Your task to perform on an android device: Do I have any events tomorrow? Image 0: 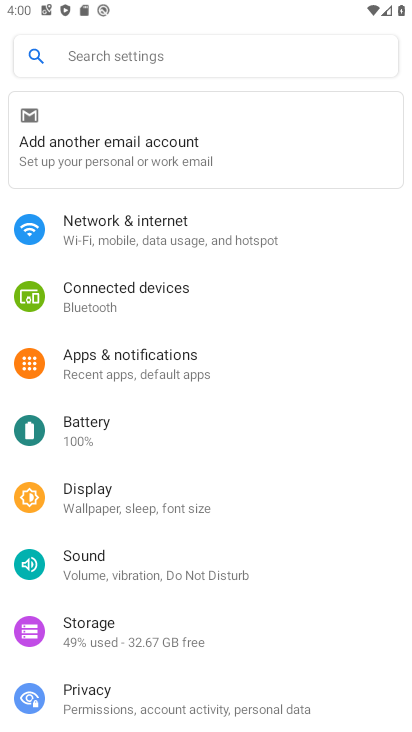
Step 0: press home button
Your task to perform on an android device: Do I have any events tomorrow? Image 1: 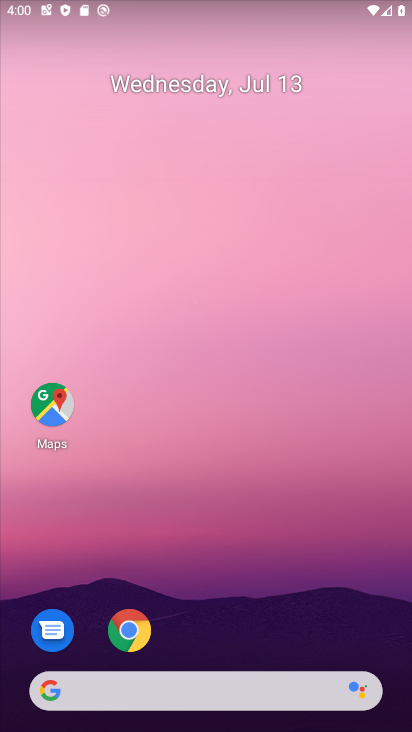
Step 1: drag from (325, 588) to (383, 183)
Your task to perform on an android device: Do I have any events tomorrow? Image 2: 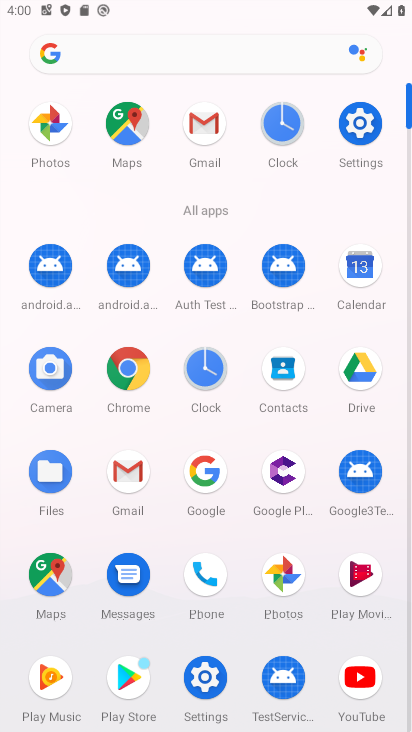
Step 2: click (358, 271)
Your task to perform on an android device: Do I have any events tomorrow? Image 3: 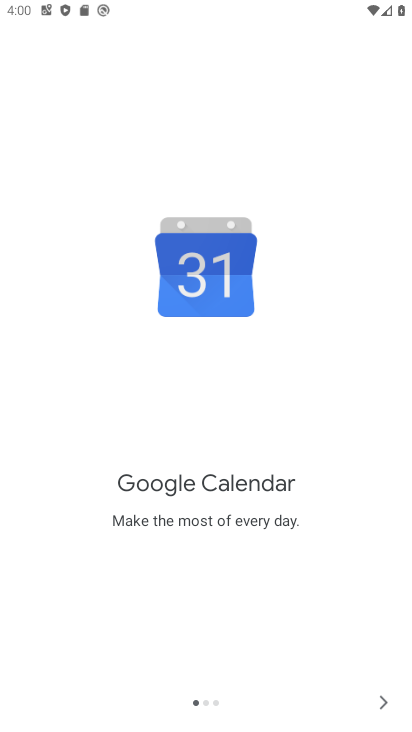
Step 3: click (377, 701)
Your task to perform on an android device: Do I have any events tomorrow? Image 4: 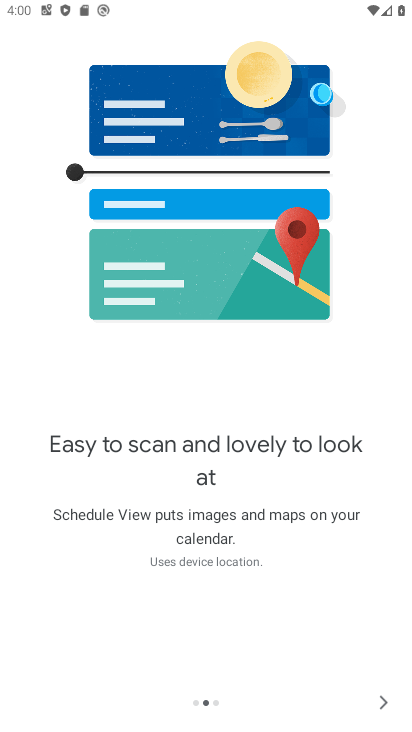
Step 4: click (377, 701)
Your task to perform on an android device: Do I have any events tomorrow? Image 5: 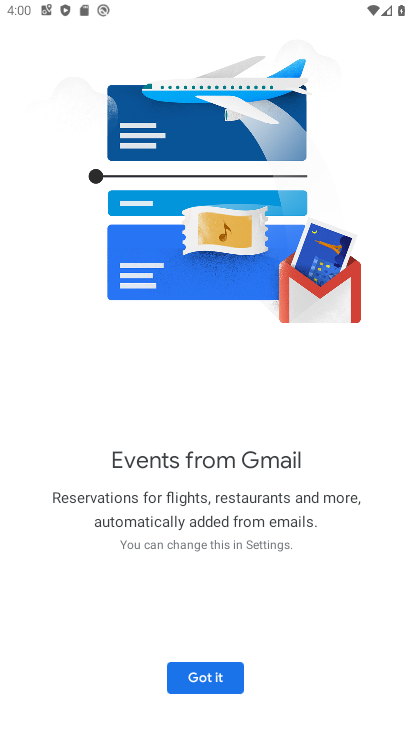
Step 5: click (209, 684)
Your task to perform on an android device: Do I have any events tomorrow? Image 6: 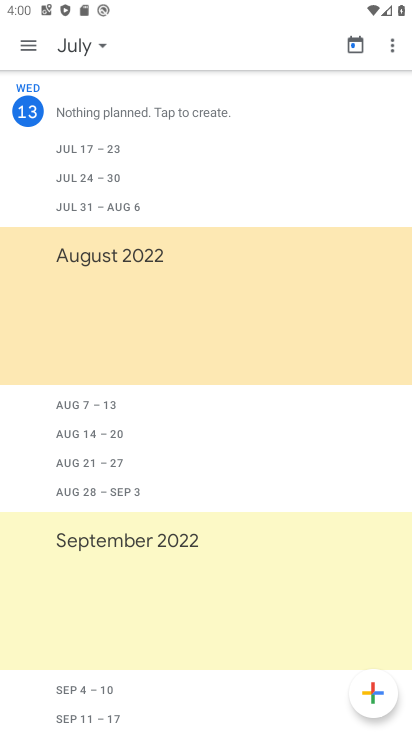
Step 6: click (101, 40)
Your task to perform on an android device: Do I have any events tomorrow? Image 7: 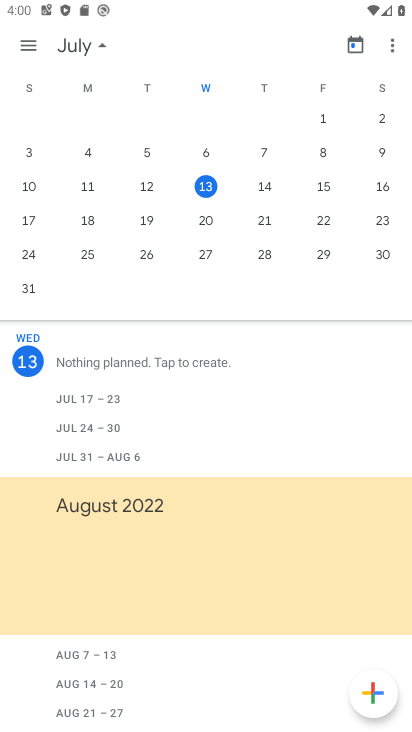
Step 7: click (266, 183)
Your task to perform on an android device: Do I have any events tomorrow? Image 8: 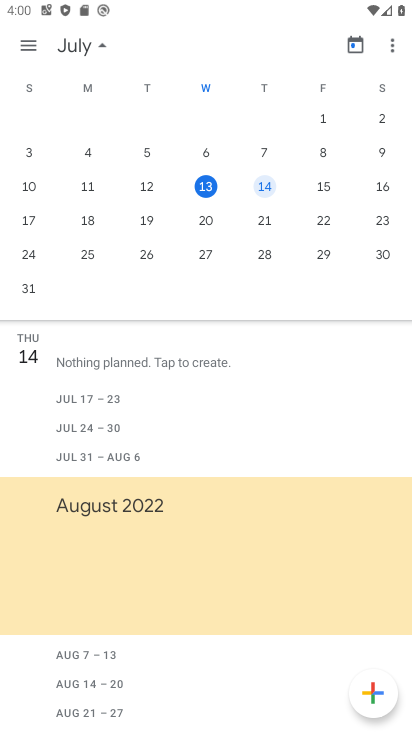
Step 8: task complete